Your task to perform on an android device: turn on location history Image 0: 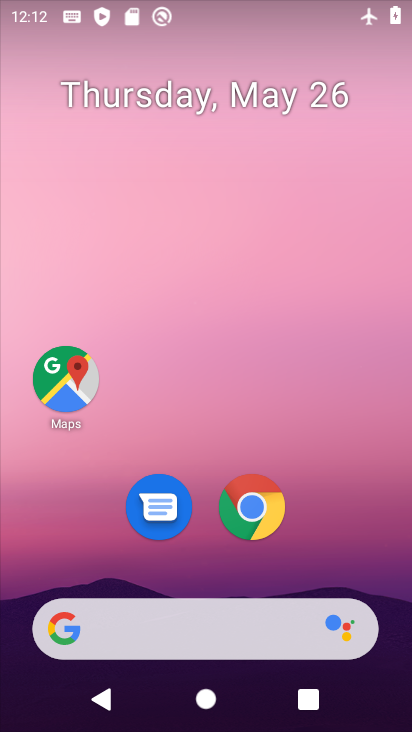
Step 0: drag from (209, 588) to (244, 75)
Your task to perform on an android device: turn on location history Image 1: 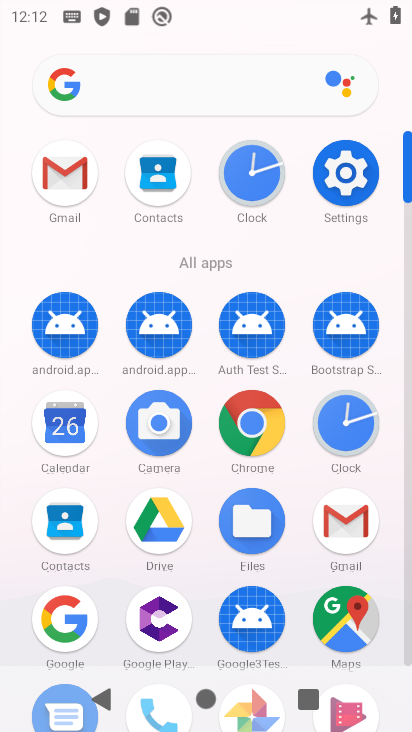
Step 1: click (341, 159)
Your task to perform on an android device: turn on location history Image 2: 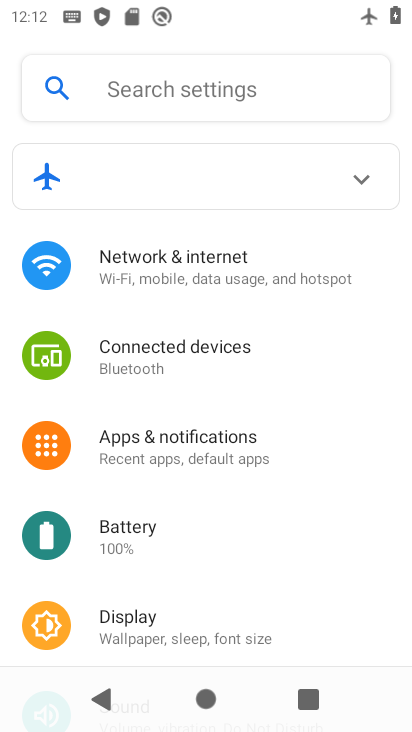
Step 2: drag from (219, 572) to (224, 219)
Your task to perform on an android device: turn on location history Image 3: 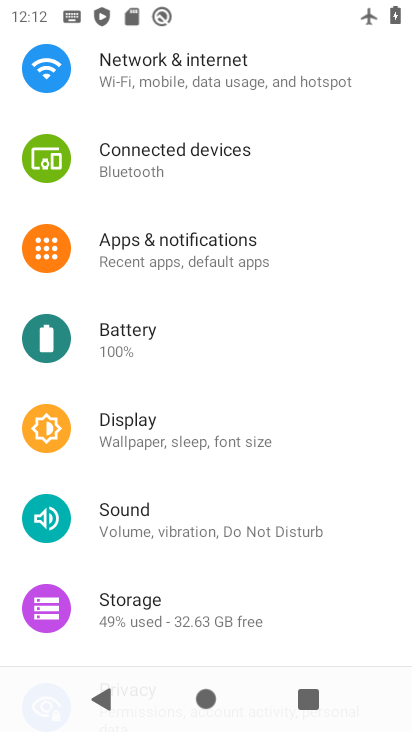
Step 3: drag from (182, 590) to (216, 284)
Your task to perform on an android device: turn on location history Image 4: 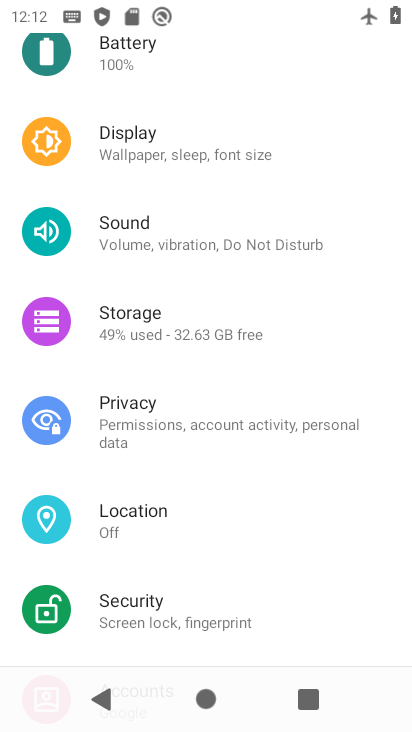
Step 4: click (172, 512)
Your task to perform on an android device: turn on location history Image 5: 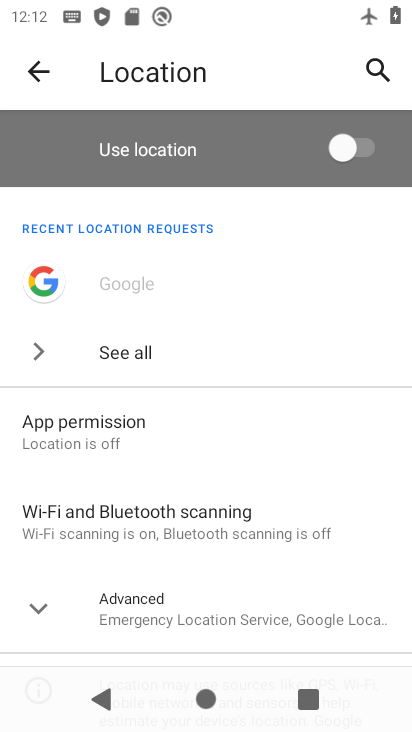
Step 5: drag from (143, 531) to (214, 324)
Your task to perform on an android device: turn on location history Image 6: 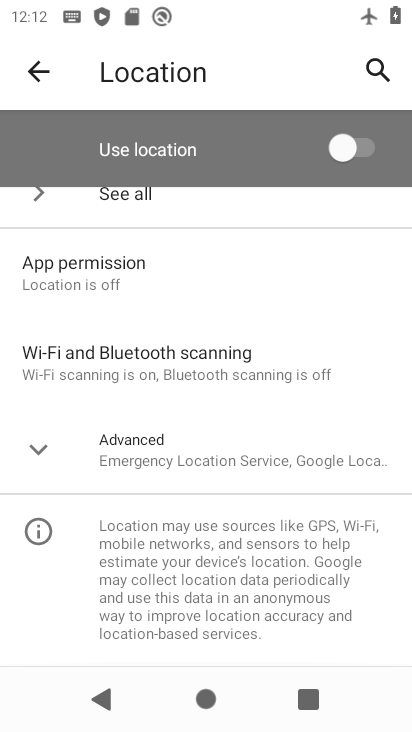
Step 6: click (197, 475)
Your task to perform on an android device: turn on location history Image 7: 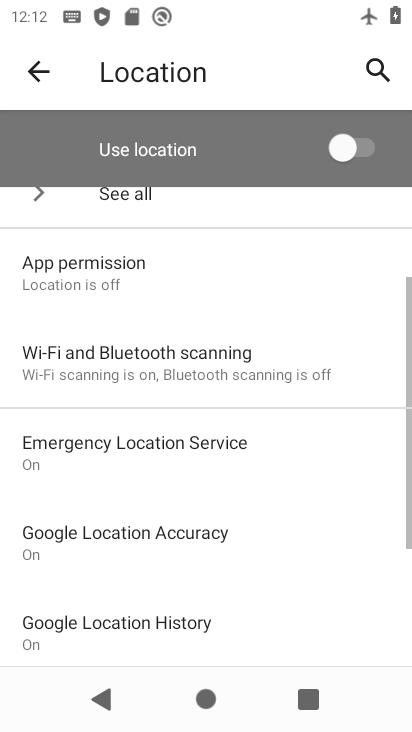
Step 7: drag from (192, 546) to (246, 315)
Your task to perform on an android device: turn on location history Image 8: 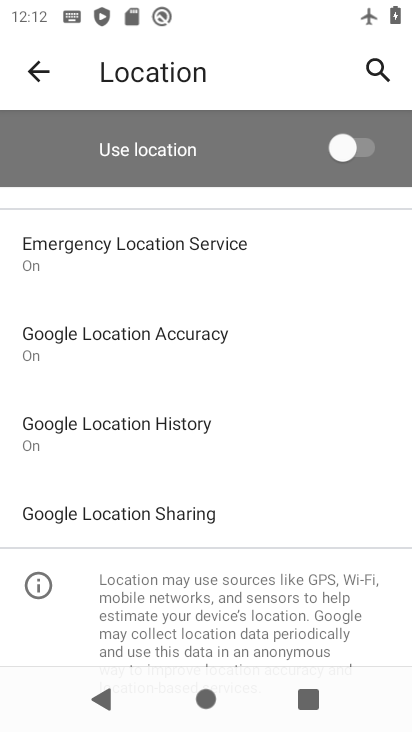
Step 8: click (187, 455)
Your task to perform on an android device: turn on location history Image 9: 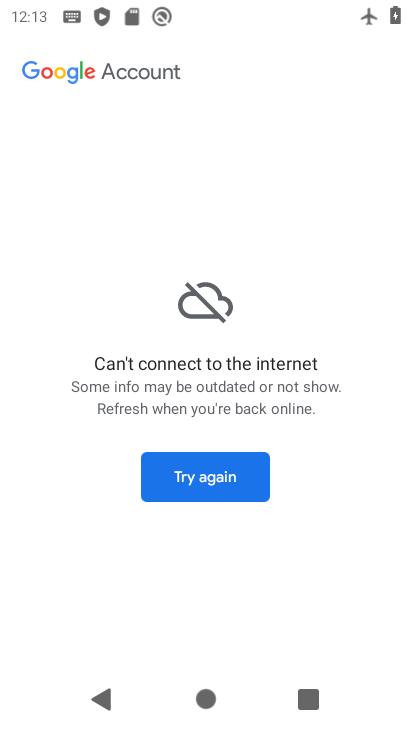
Step 9: task complete